Your task to perform on an android device: Open Google Chrome and open the bookmarks view Image 0: 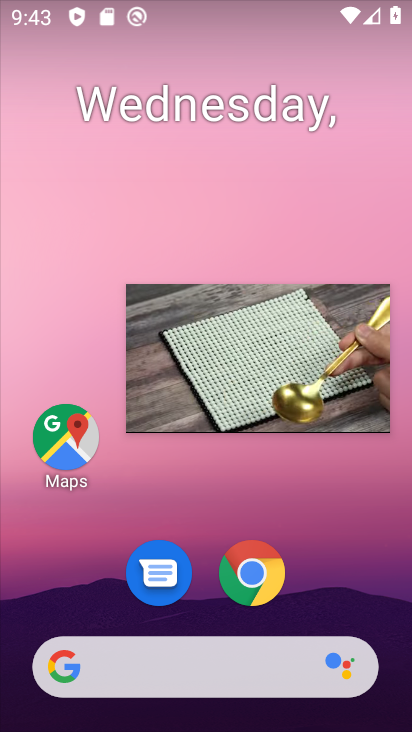
Step 0: drag from (371, 584) to (383, 136)
Your task to perform on an android device: Open Google Chrome and open the bookmarks view Image 1: 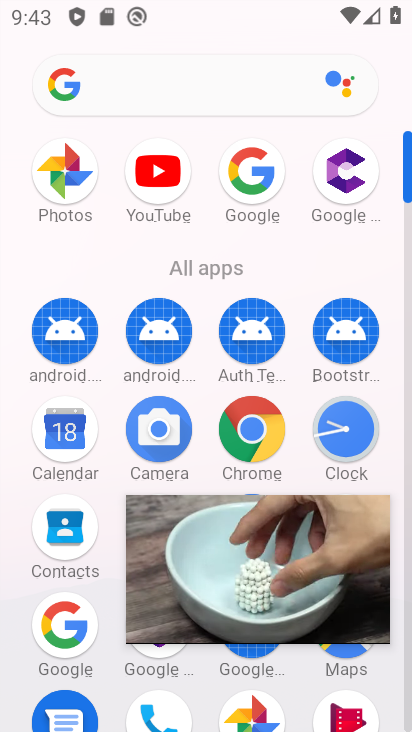
Step 1: click (257, 424)
Your task to perform on an android device: Open Google Chrome and open the bookmarks view Image 2: 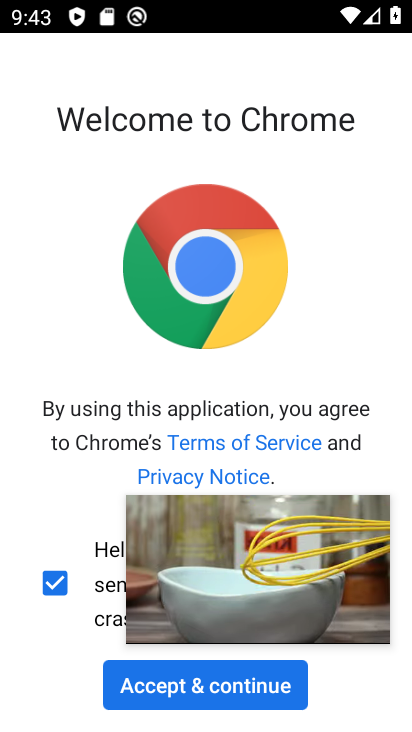
Step 2: click (198, 694)
Your task to perform on an android device: Open Google Chrome and open the bookmarks view Image 3: 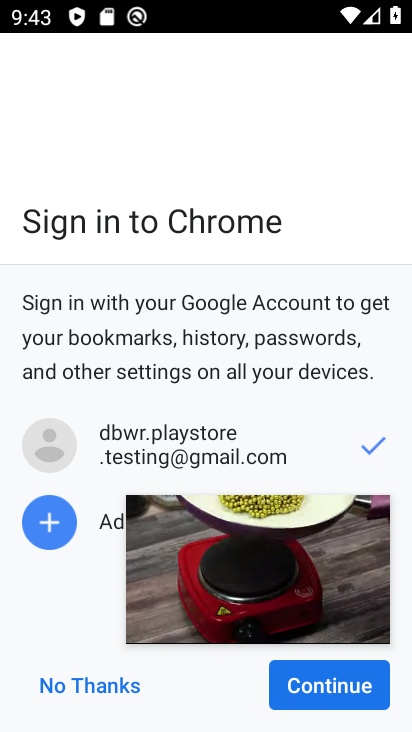
Step 3: click (312, 685)
Your task to perform on an android device: Open Google Chrome and open the bookmarks view Image 4: 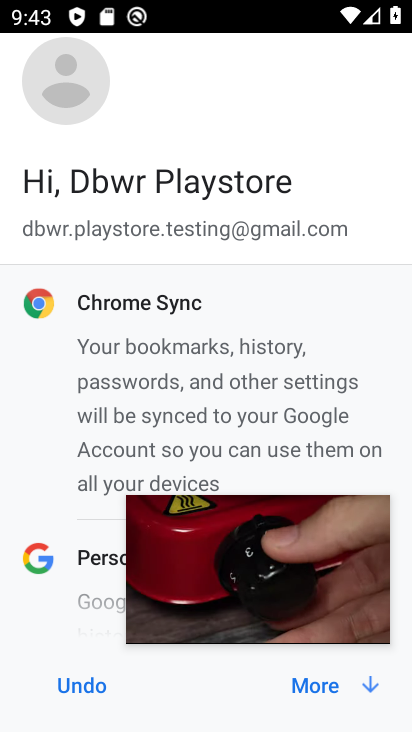
Step 4: click (312, 685)
Your task to perform on an android device: Open Google Chrome and open the bookmarks view Image 5: 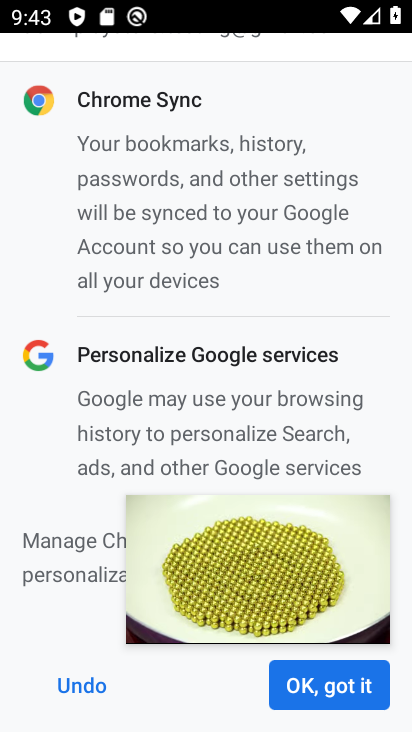
Step 5: click (312, 685)
Your task to perform on an android device: Open Google Chrome and open the bookmarks view Image 6: 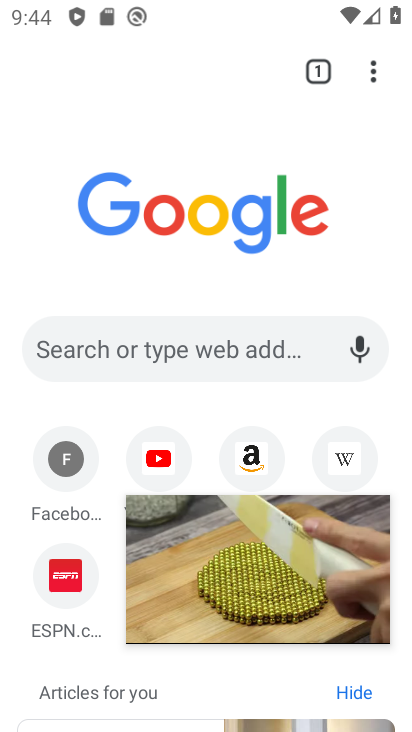
Step 6: click (371, 80)
Your task to perform on an android device: Open Google Chrome and open the bookmarks view Image 7: 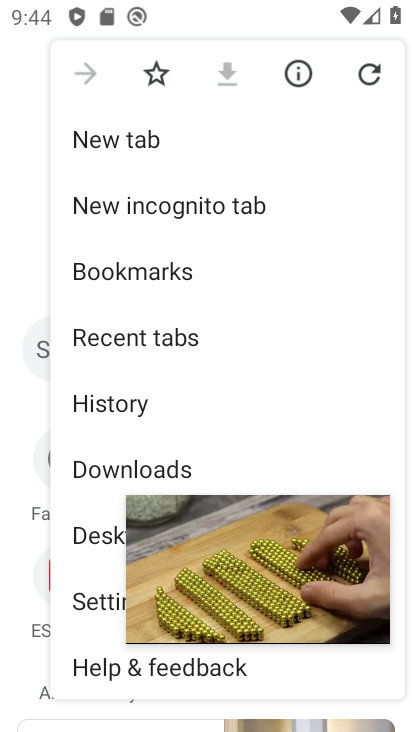
Step 7: drag from (290, 435) to (290, 252)
Your task to perform on an android device: Open Google Chrome and open the bookmarks view Image 8: 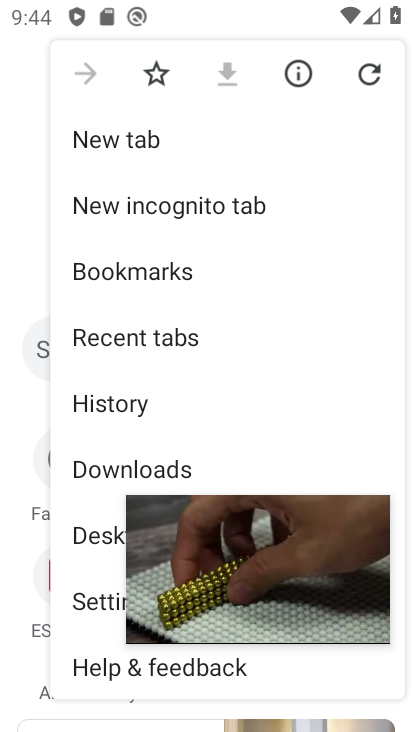
Step 8: click (171, 283)
Your task to perform on an android device: Open Google Chrome and open the bookmarks view Image 9: 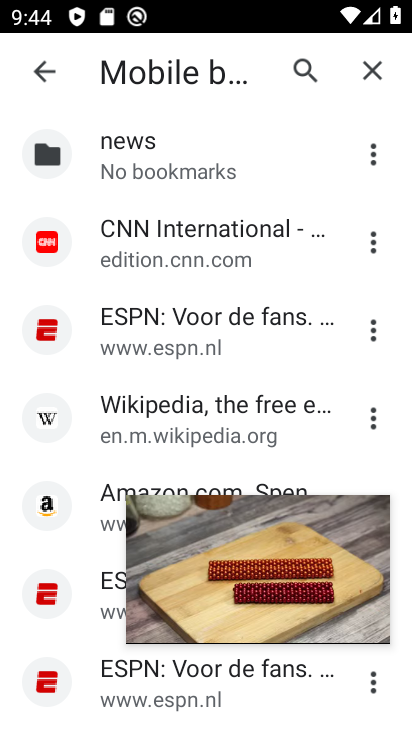
Step 9: task complete